Your task to perform on an android device: delete the emails in spam in the gmail app Image 0: 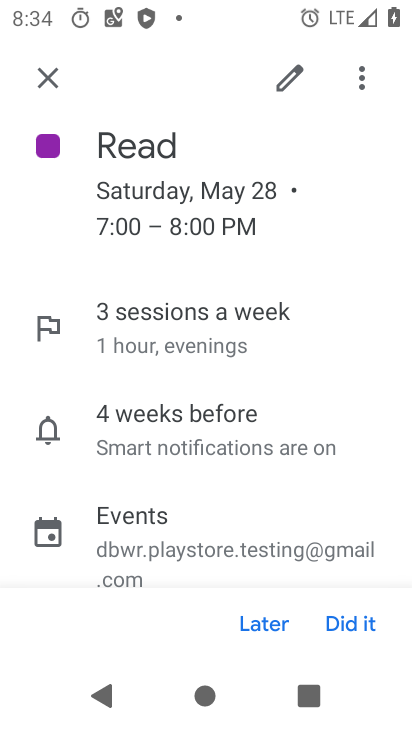
Step 0: press home button
Your task to perform on an android device: delete the emails in spam in the gmail app Image 1: 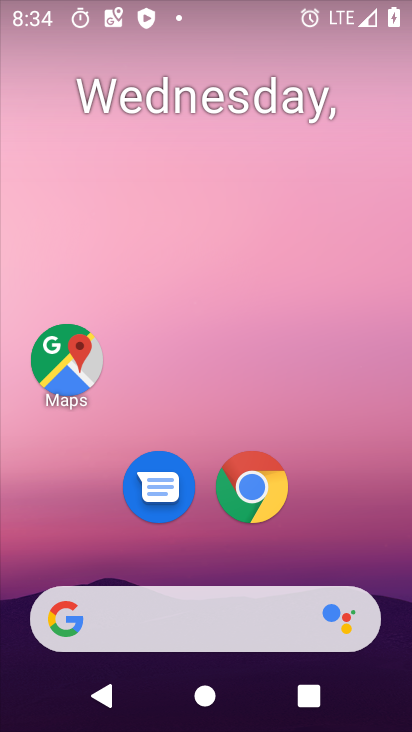
Step 1: drag from (369, 578) to (365, 0)
Your task to perform on an android device: delete the emails in spam in the gmail app Image 2: 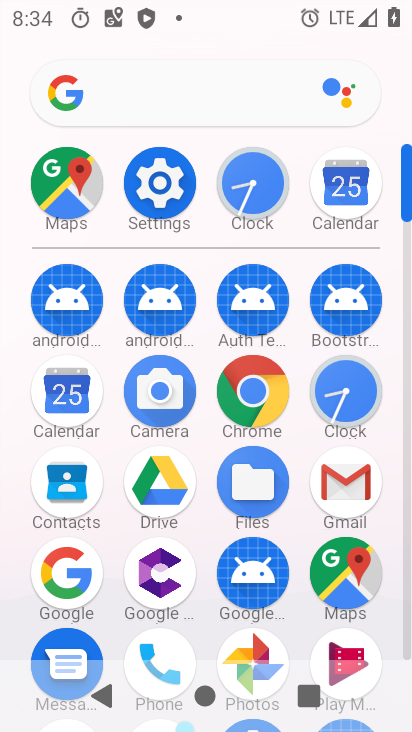
Step 2: click (343, 488)
Your task to perform on an android device: delete the emails in spam in the gmail app Image 3: 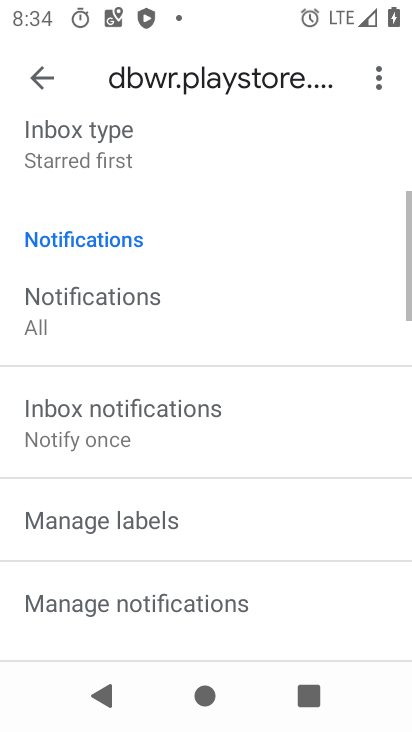
Step 3: click (38, 76)
Your task to perform on an android device: delete the emails in spam in the gmail app Image 4: 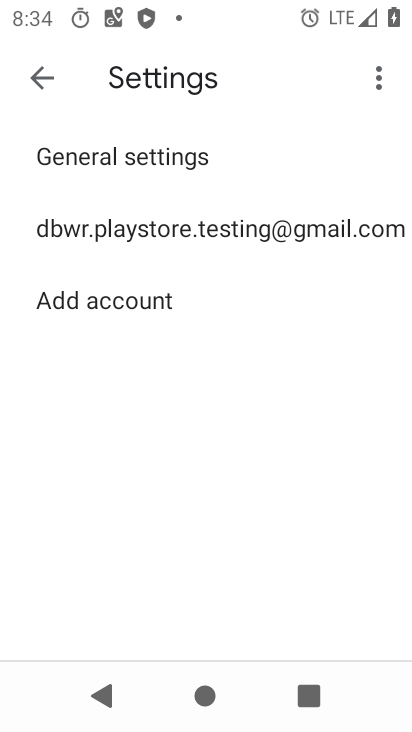
Step 4: click (38, 76)
Your task to perform on an android device: delete the emails in spam in the gmail app Image 5: 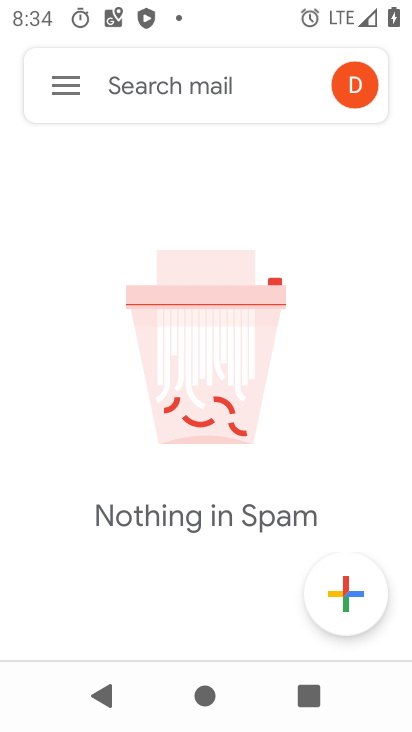
Step 5: task complete